Your task to perform on an android device: open device folders in google photos Image 0: 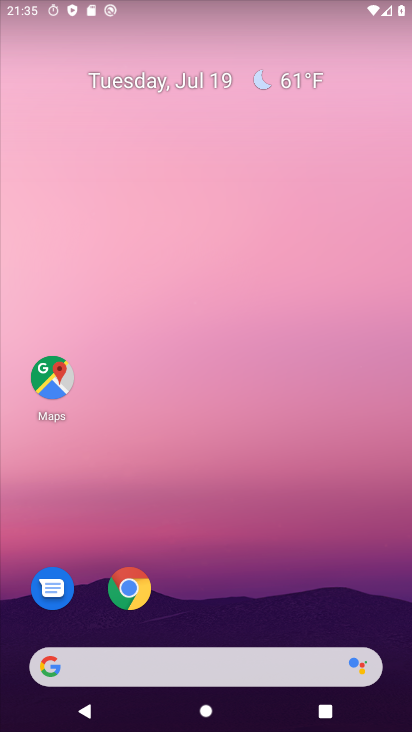
Step 0: drag from (203, 372) to (203, 31)
Your task to perform on an android device: open device folders in google photos Image 1: 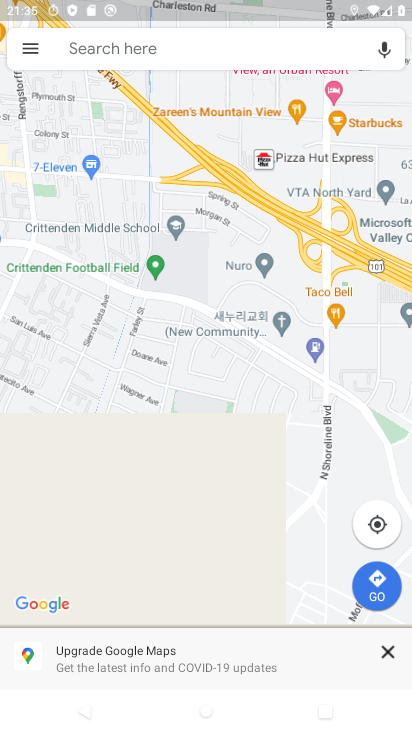
Step 1: press home button
Your task to perform on an android device: open device folders in google photos Image 2: 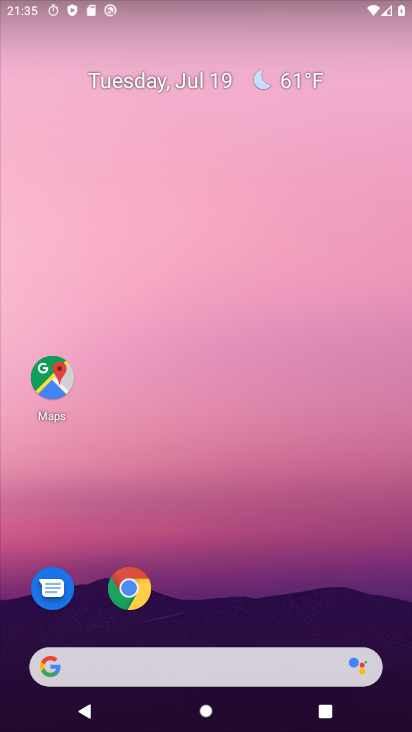
Step 2: drag from (210, 619) to (206, 50)
Your task to perform on an android device: open device folders in google photos Image 3: 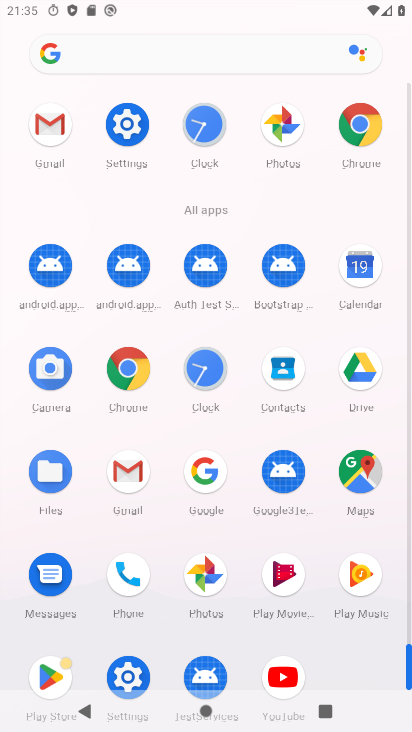
Step 3: click (279, 114)
Your task to perform on an android device: open device folders in google photos Image 4: 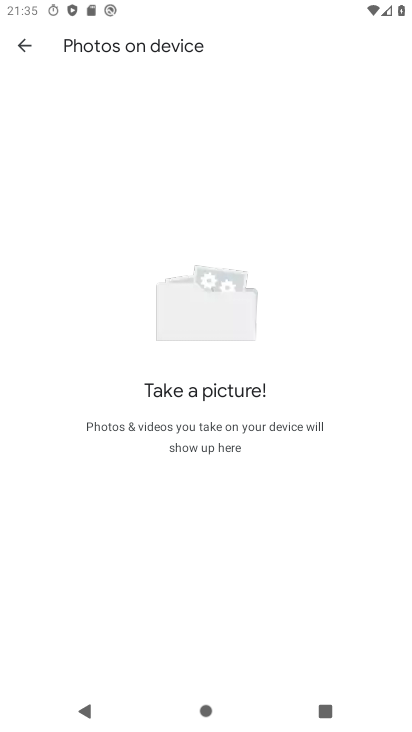
Step 4: task complete